Your task to perform on an android device: turn off sleep mode Image 0: 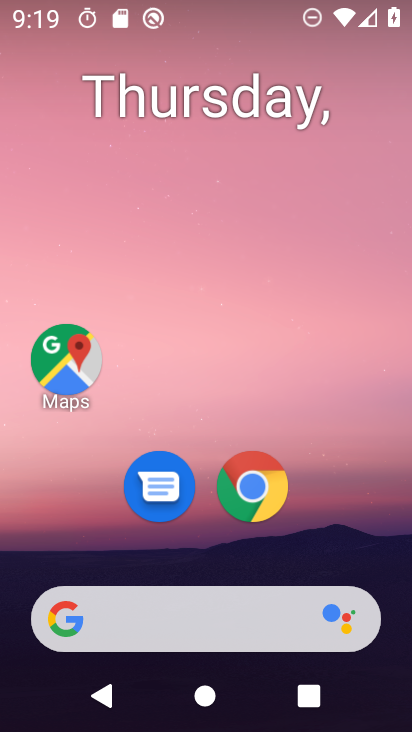
Step 0: drag from (168, 451) to (245, 12)
Your task to perform on an android device: turn off sleep mode Image 1: 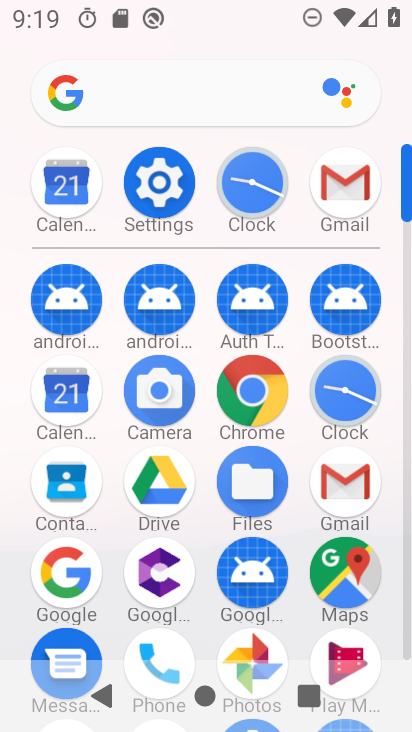
Step 1: click (149, 174)
Your task to perform on an android device: turn off sleep mode Image 2: 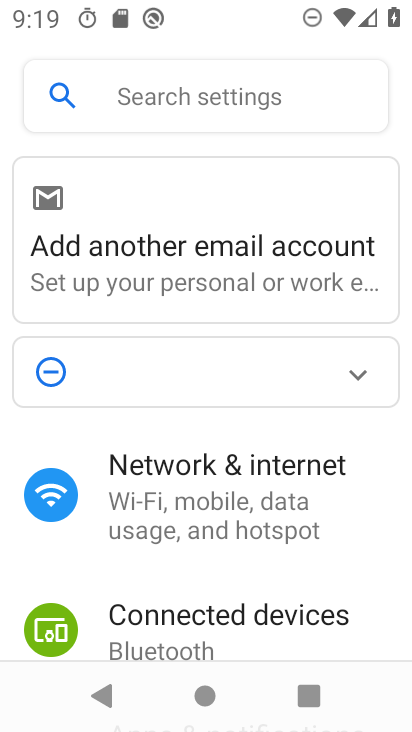
Step 2: click (202, 100)
Your task to perform on an android device: turn off sleep mode Image 3: 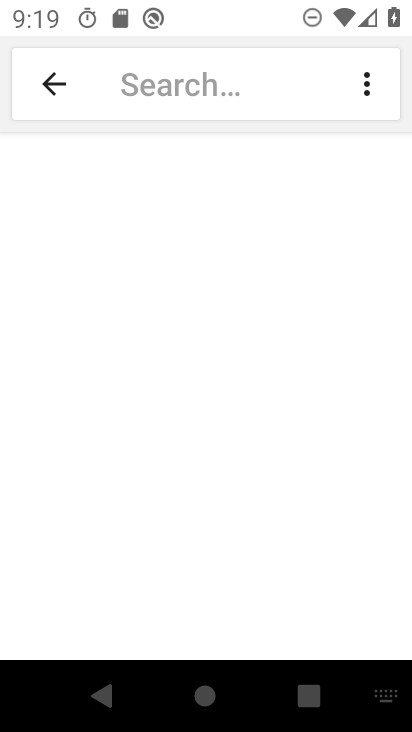
Step 3: type "sleep mode"
Your task to perform on an android device: turn off sleep mode Image 4: 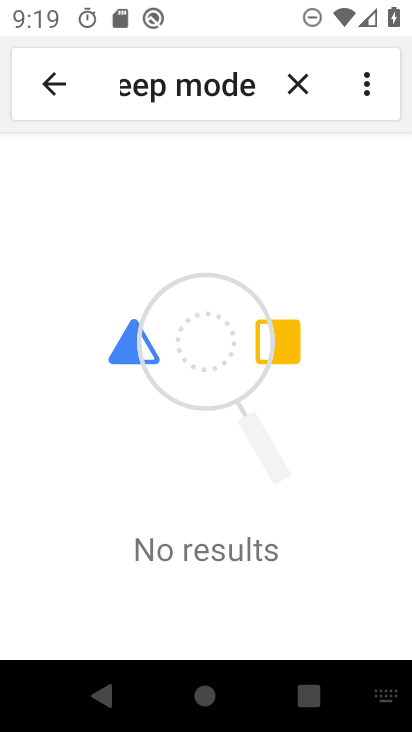
Step 4: task complete